Your task to perform on an android device: check battery use Image 0: 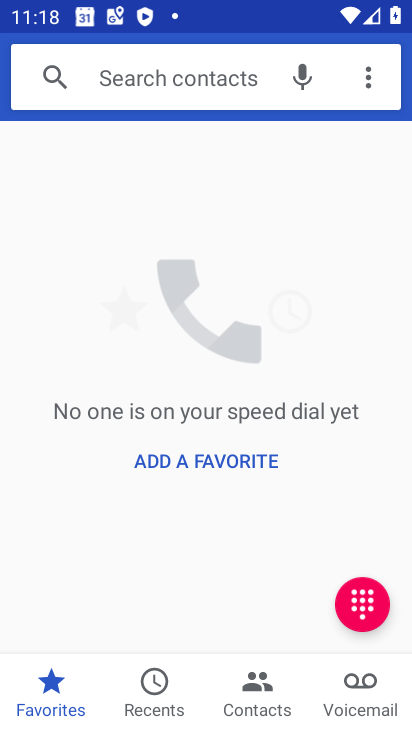
Step 0: drag from (227, 636) to (309, 375)
Your task to perform on an android device: check battery use Image 1: 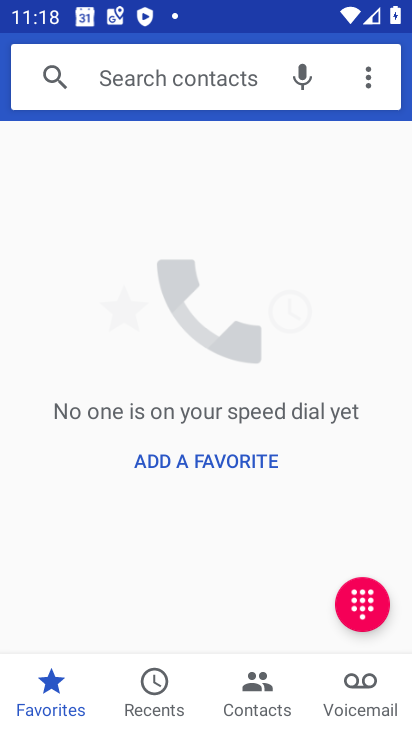
Step 1: press home button
Your task to perform on an android device: check battery use Image 2: 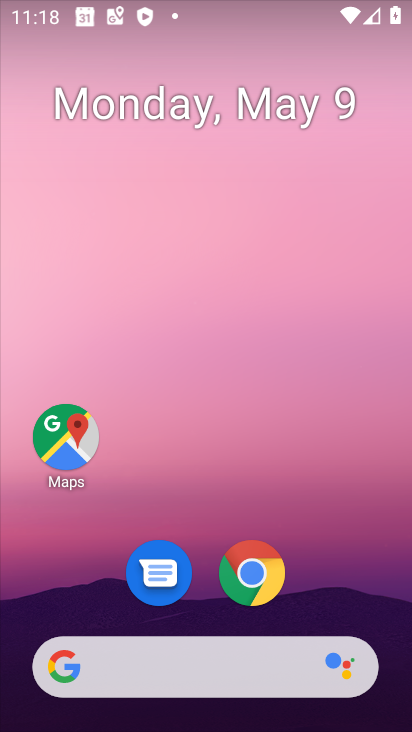
Step 2: drag from (195, 611) to (312, 227)
Your task to perform on an android device: check battery use Image 3: 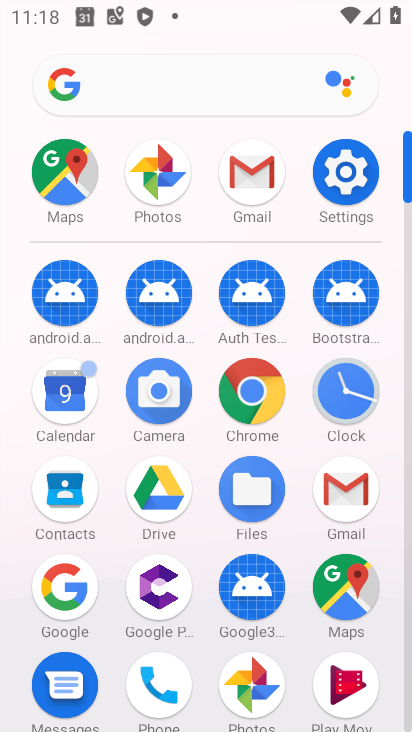
Step 3: click (344, 168)
Your task to perform on an android device: check battery use Image 4: 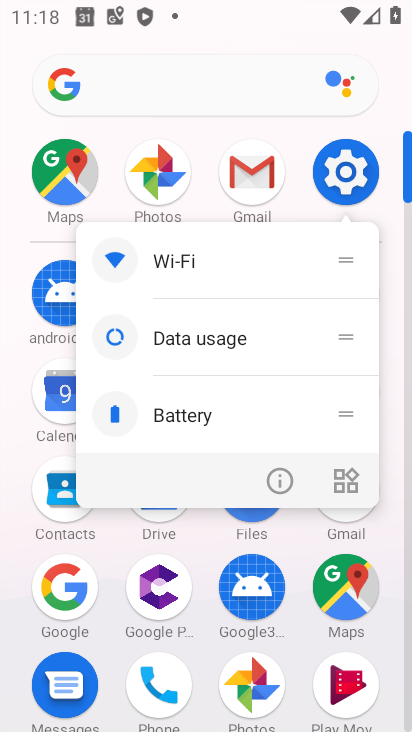
Step 4: click (268, 471)
Your task to perform on an android device: check battery use Image 5: 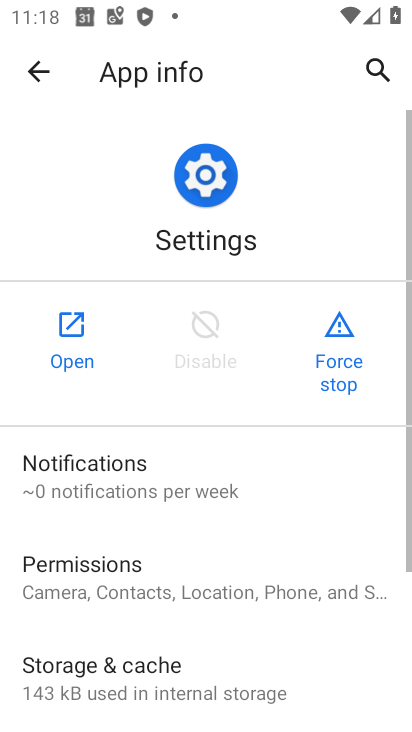
Step 5: click (74, 319)
Your task to perform on an android device: check battery use Image 6: 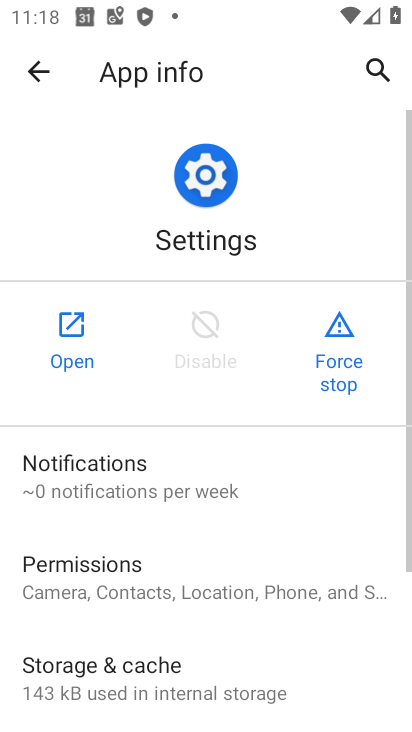
Step 6: click (74, 319)
Your task to perform on an android device: check battery use Image 7: 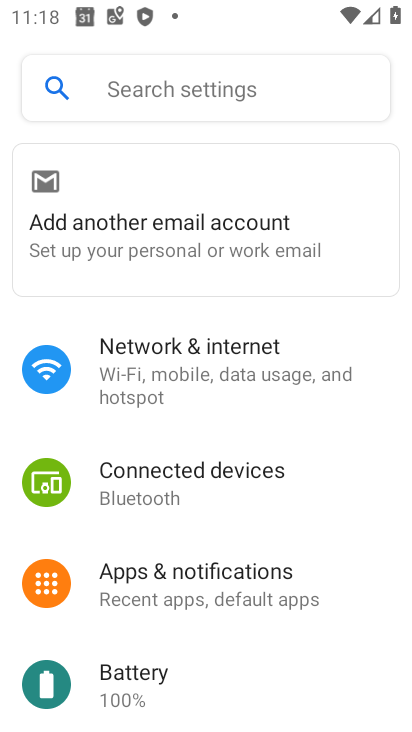
Step 7: drag from (187, 673) to (248, 354)
Your task to perform on an android device: check battery use Image 8: 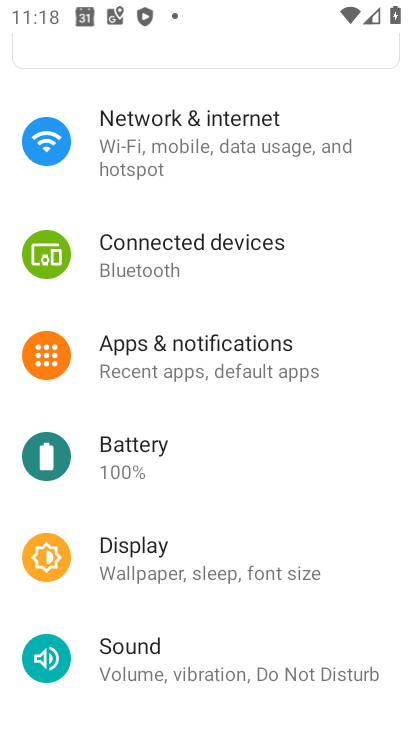
Step 8: click (155, 446)
Your task to perform on an android device: check battery use Image 9: 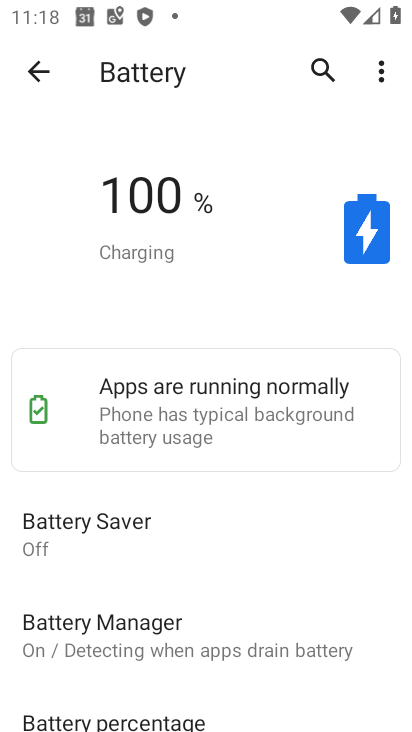
Step 9: drag from (234, 318) to (240, 500)
Your task to perform on an android device: check battery use Image 10: 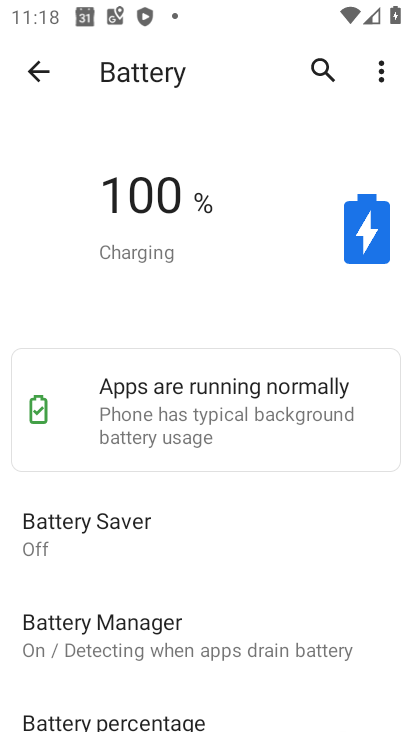
Step 10: drag from (192, 269) to (216, 540)
Your task to perform on an android device: check battery use Image 11: 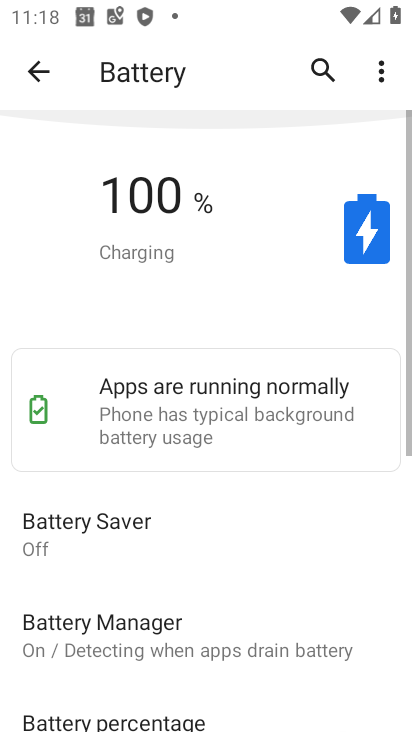
Step 11: drag from (215, 541) to (285, 325)
Your task to perform on an android device: check battery use Image 12: 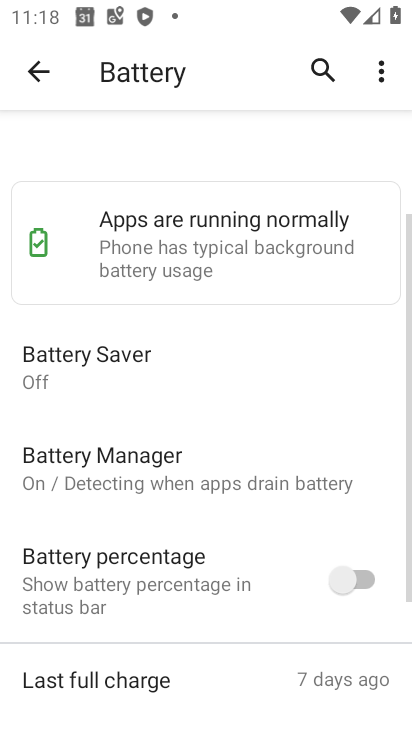
Step 12: drag from (284, 322) to (255, 670)
Your task to perform on an android device: check battery use Image 13: 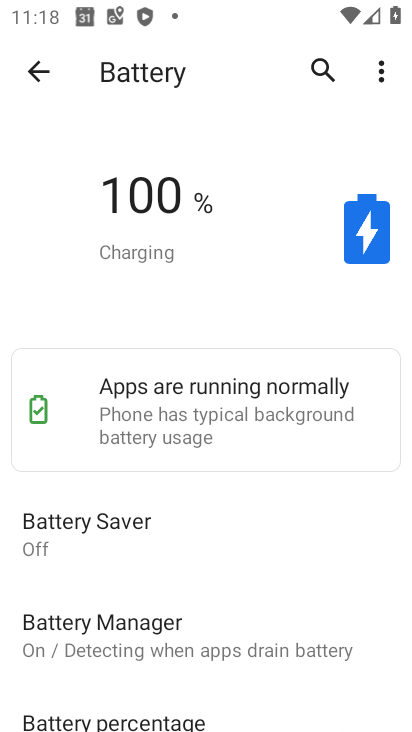
Step 13: click (379, 66)
Your task to perform on an android device: check battery use Image 14: 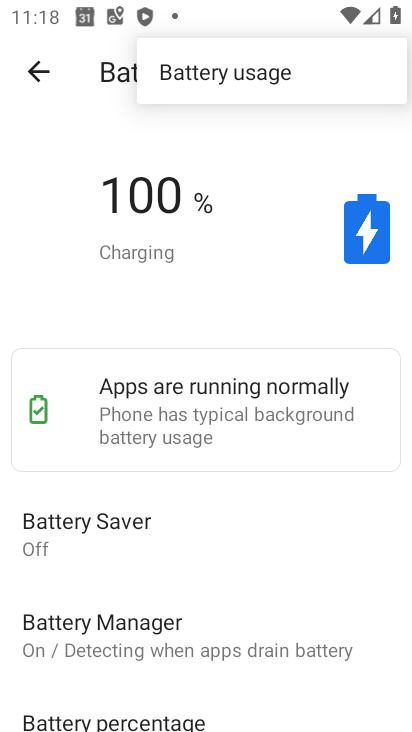
Step 14: click (300, 76)
Your task to perform on an android device: check battery use Image 15: 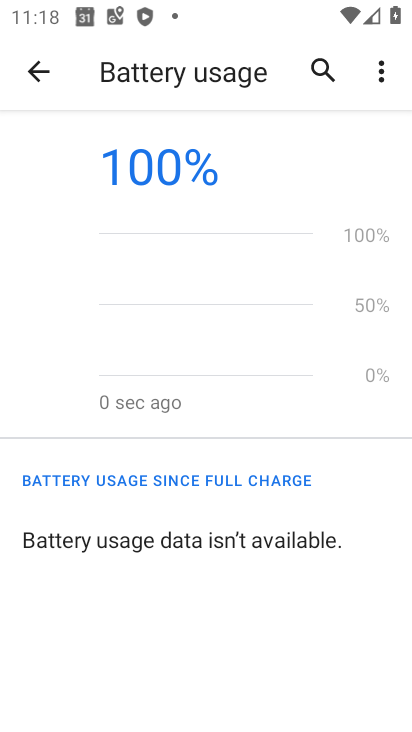
Step 15: task complete